Your task to perform on an android device: turn off wifi Image 0: 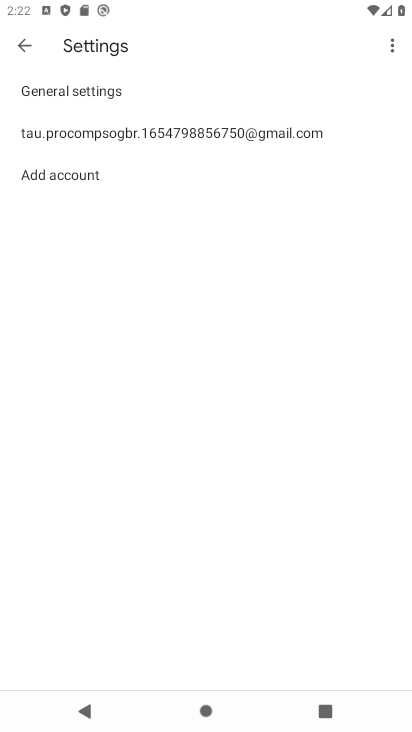
Step 0: drag from (133, 7) to (161, 449)
Your task to perform on an android device: turn off wifi Image 1: 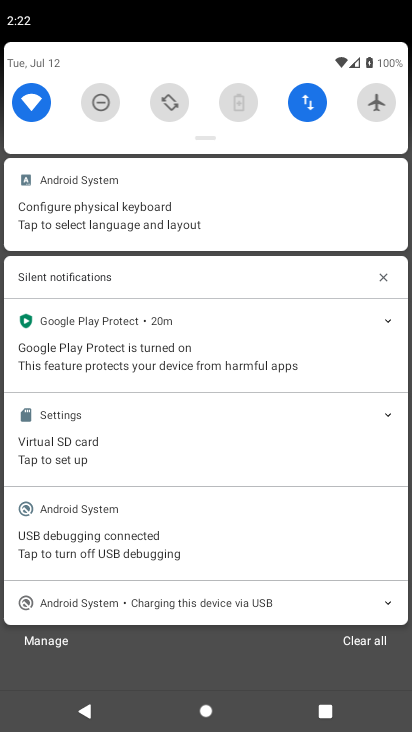
Step 1: click (31, 93)
Your task to perform on an android device: turn off wifi Image 2: 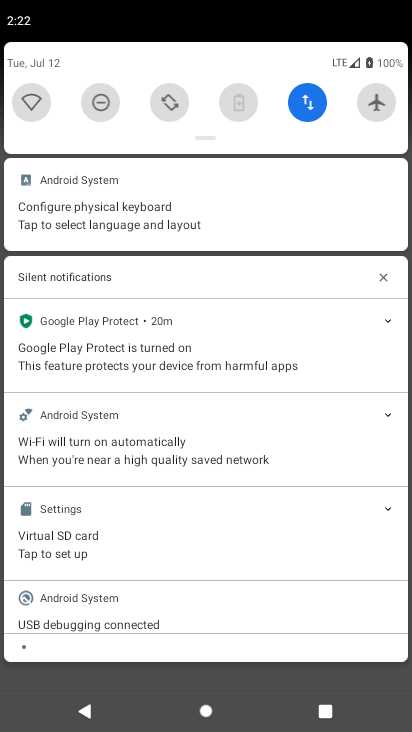
Step 2: task complete